Your task to perform on an android device: open wifi settings Image 0: 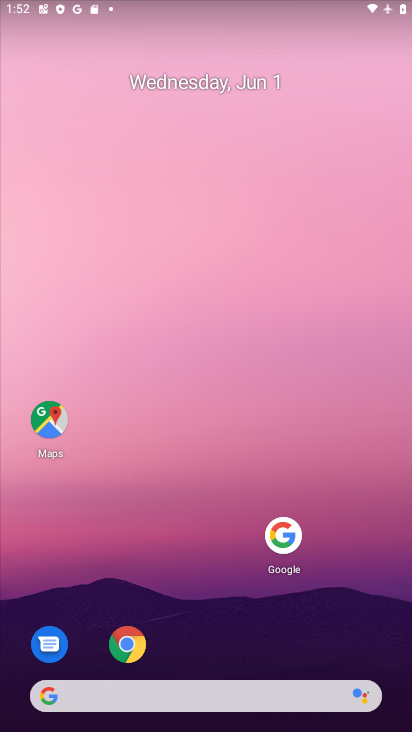
Step 0: press home button
Your task to perform on an android device: open wifi settings Image 1: 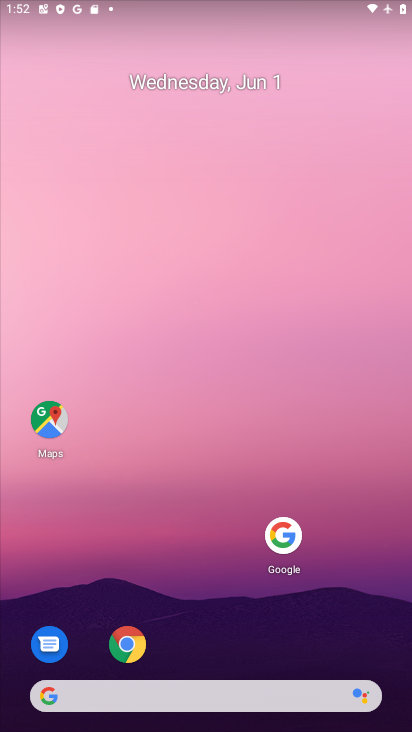
Step 1: drag from (166, 695) to (280, 182)
Your task to perform on an android device: open wifi settings Image 2: 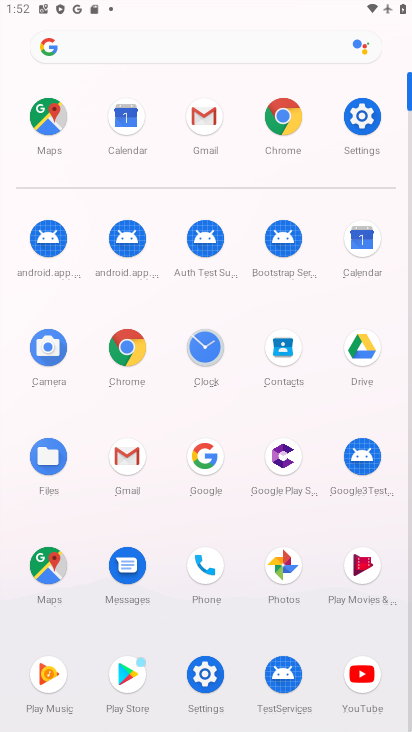
Step 2: click (364, 116)
Your task to perform on an android device: open wifi settings Image 3: 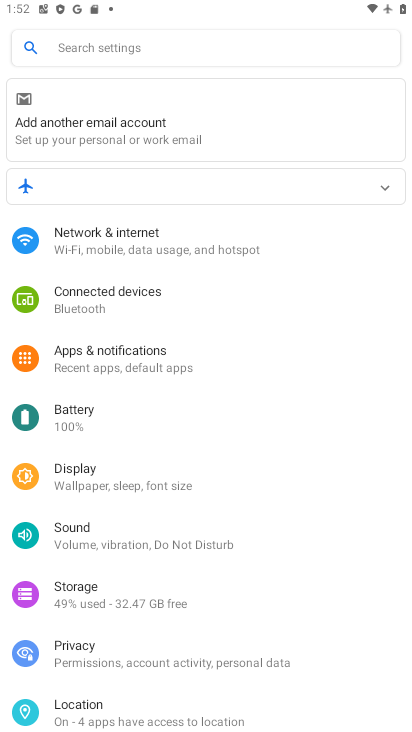
Step 3: click (157, 245)
Your task to perform on an android device: open wifi settings Image 4: 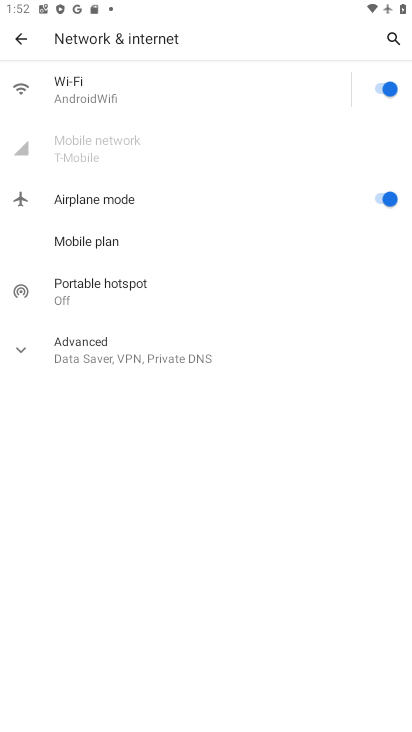
Step 4: click (92, 95)
Your task to perform on an android device: open wifi settings Image 5: 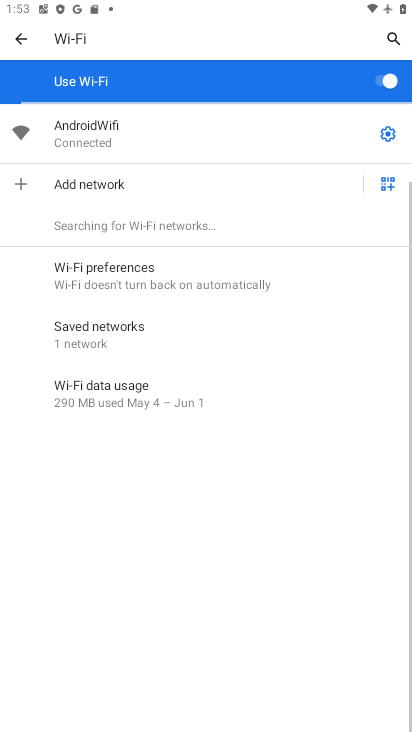
Step 5: task complete